Your task to perform on an android device: turn off notifications settings in the gmail app Image 0: 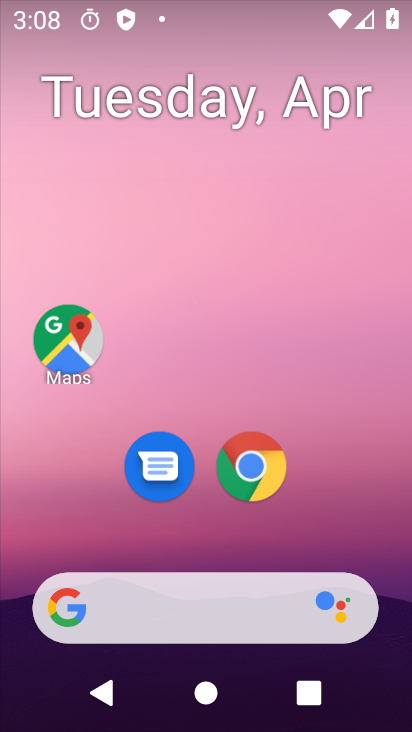
Step 0: drag from (215, 545) to (80, 21)
Your task to perform on an android device: turn off notifications settings in the gmail app Image 1: 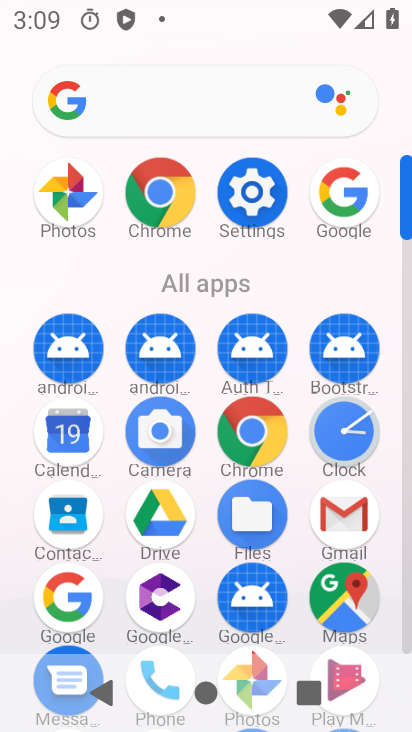
Step 1: click (337, 521)
Your task to perform on an android device: turn off notifications settings in the gmail app Image 2: 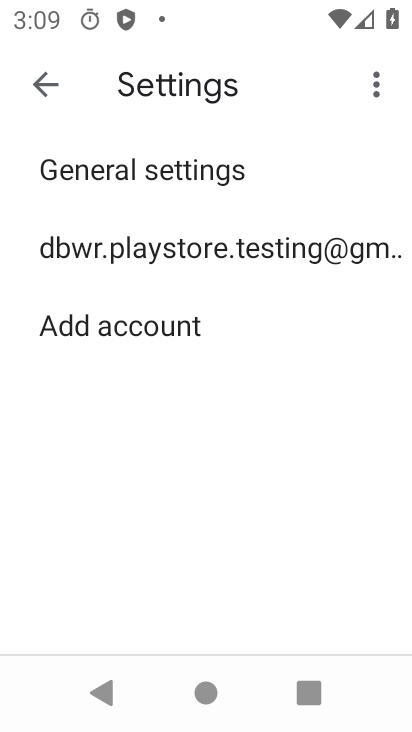
Step 2: click (91, 171)
Your task to perform on an android device: turn off notifications settings in the gmail app Image 3: 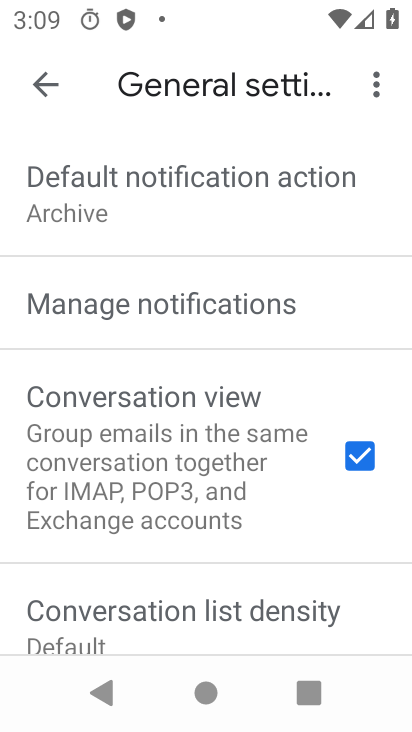
Step 3: click (139, 306)
Your task to perform on an android device: turn off notifications settings in the gmail app Image 4: 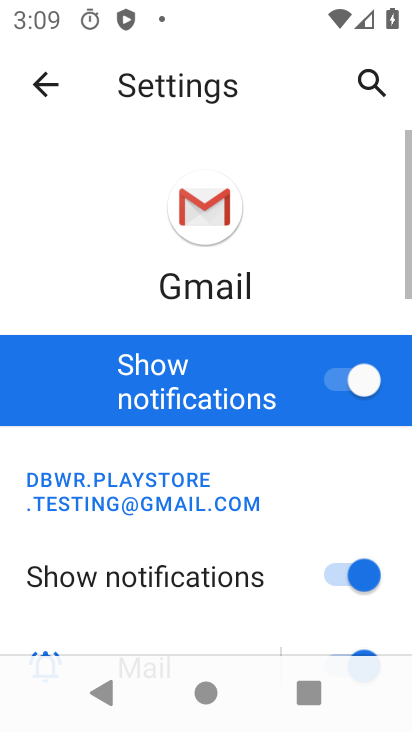
Step 4: click (338, 370)
Your task to perform on an android device: turn off notifications settings in the gmail app Image 5: 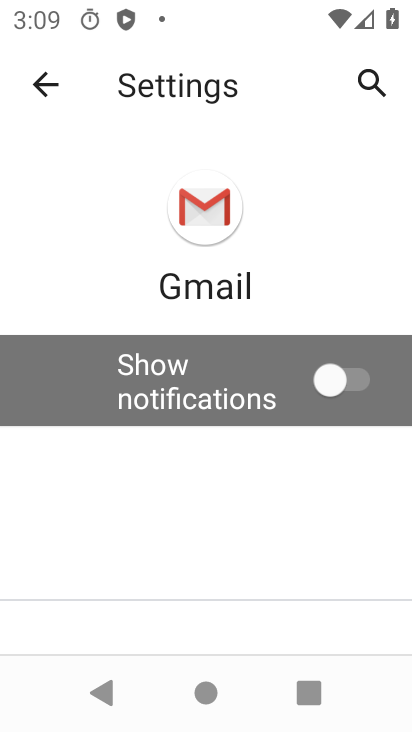
Step 5: task complete